Your task to perform on an android device: Go to eBay Image 0: 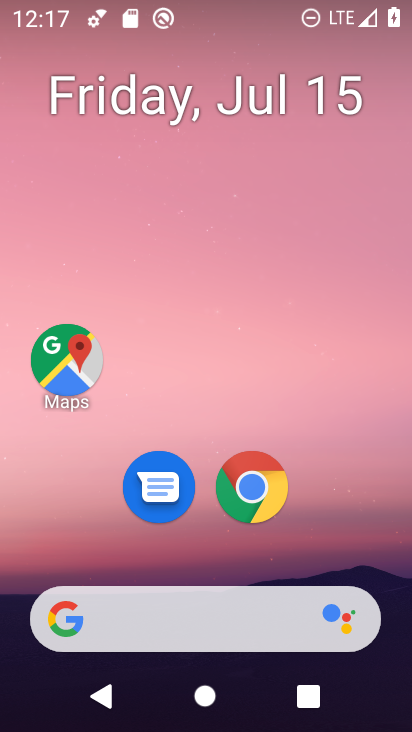
Step 0: drag from (233, 653) to (285, 120)
Your task to perform on an android device: Go to eBay Image 1: 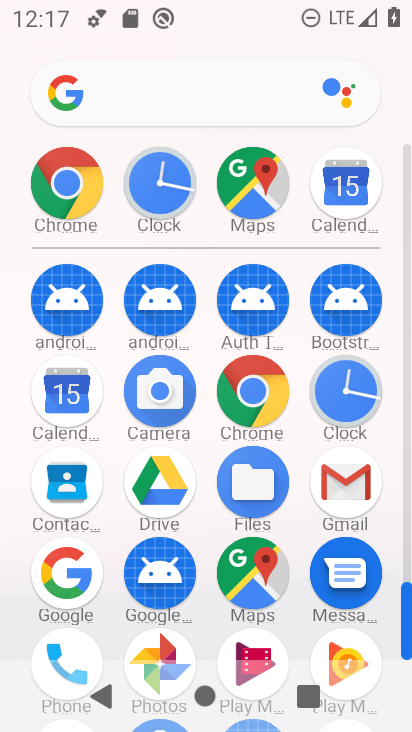
Step 1: click (263, 406)
Your task to perform on an android device: Go to eBay Image 2: 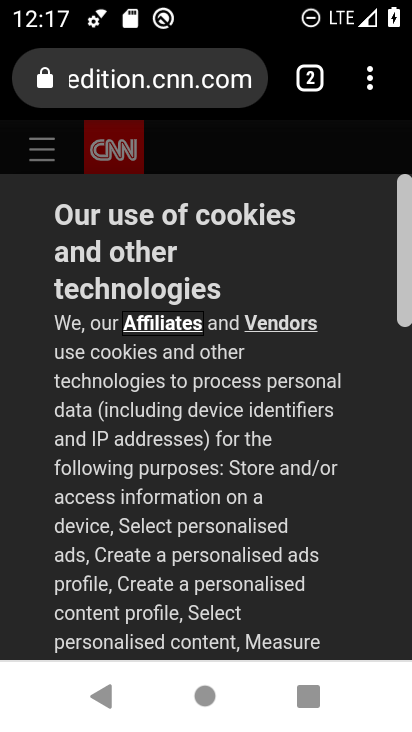
Step 2: click (142, 82)
Your task to perform on an android device: Go to eBay Image 3: 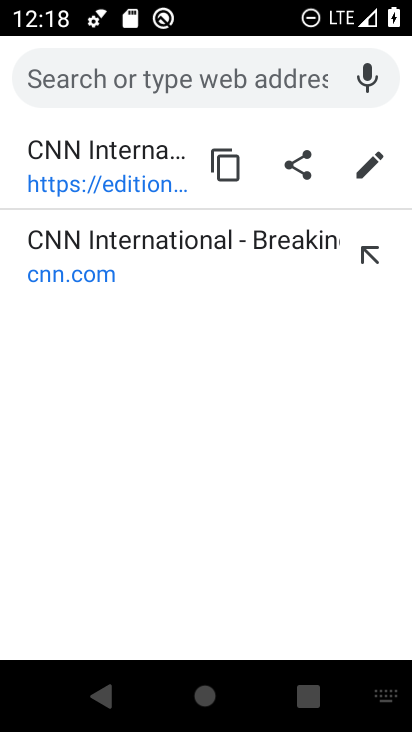
Step 3: type "ebay"
Your task to perform on an android device: Go to eBay Image 4: 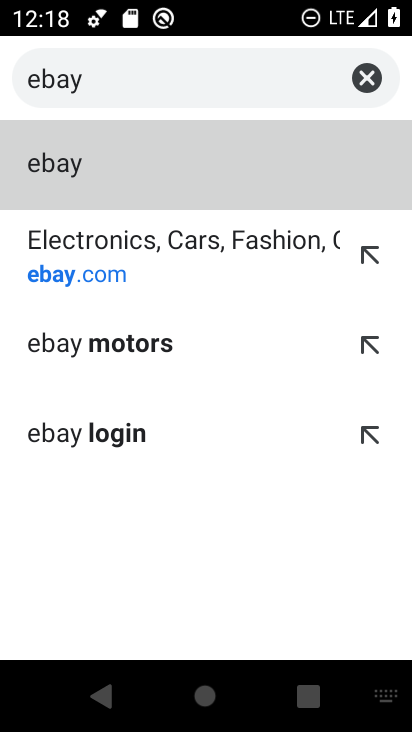
Step 4: click (137, 256)
Your task to perform on an android device: Go to eBay Image 5: 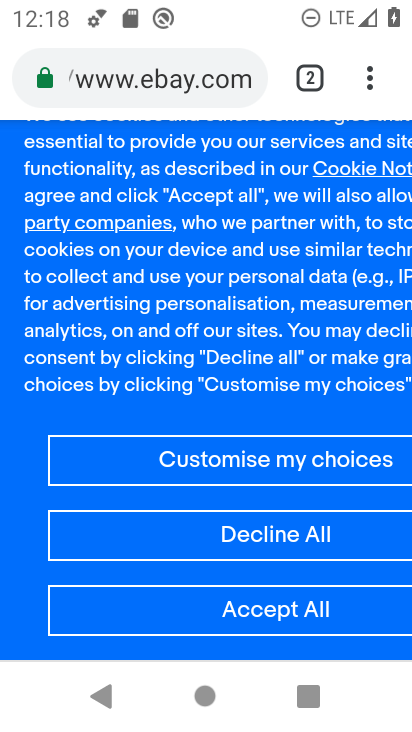
Step 5: task complete